Your task to perform on an android device: Open Yahoo.com Image 0: 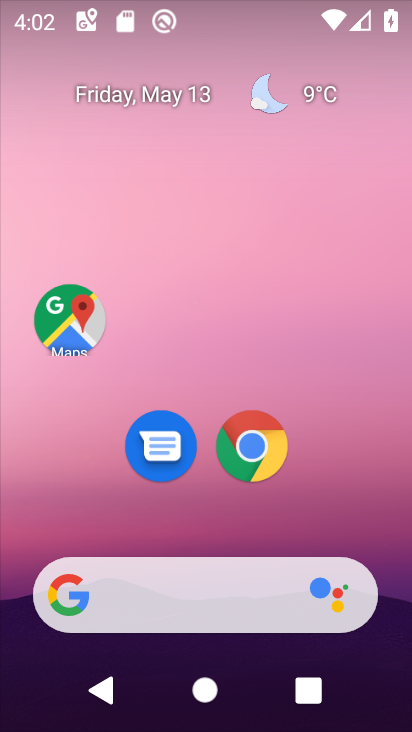
Step 0: click (236, 447)
Your task to perform on an android device: Open Yahoo.com Image 1: 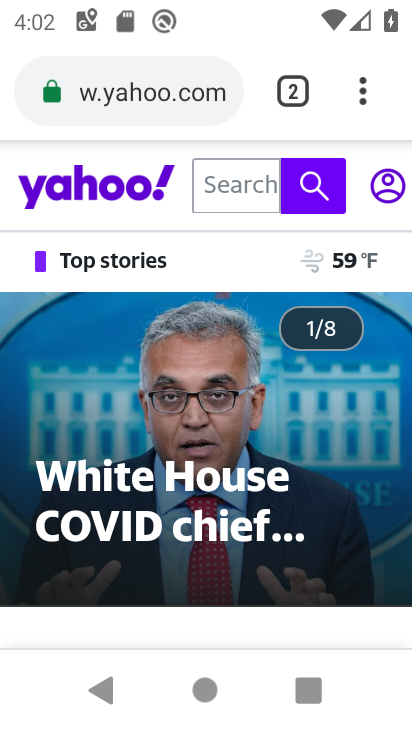
Step 1: task complete